Your task to perform on an android device: stop showing notifications on the lock screen Image 0: 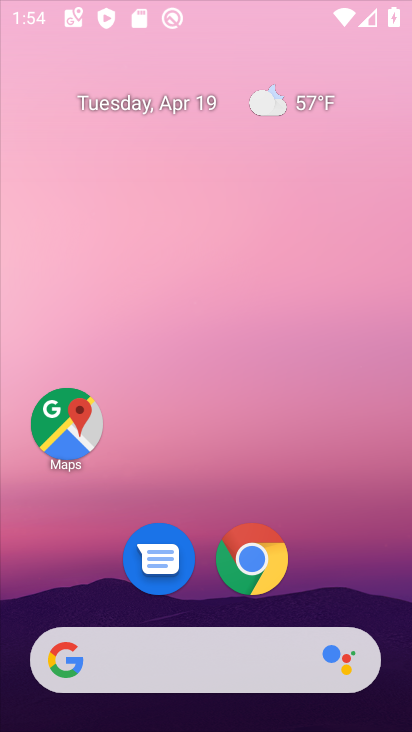
Step 0: click (251, 550)
Your task to perform on an android device: stop showing notifications on the lock screen Image 1: 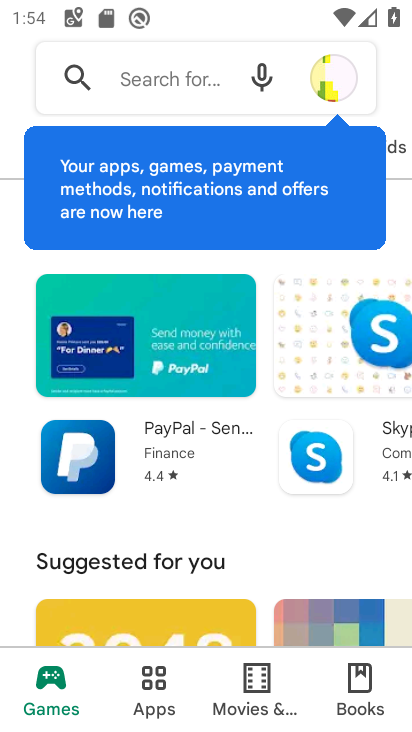
Step 1: press home button
Your task to perform on an android device: stop showing notifications on the lock screen Image 2: 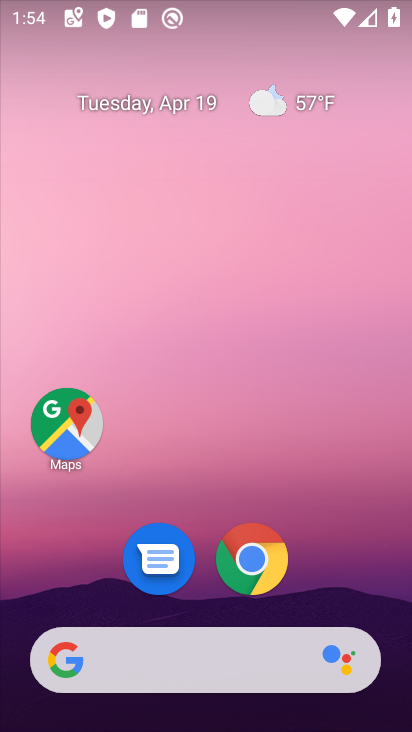
Step 2: drag from (211, 598) to (256, 114)
Your task to perform on an android device: stop showing notifications on the lock screen Image 3: 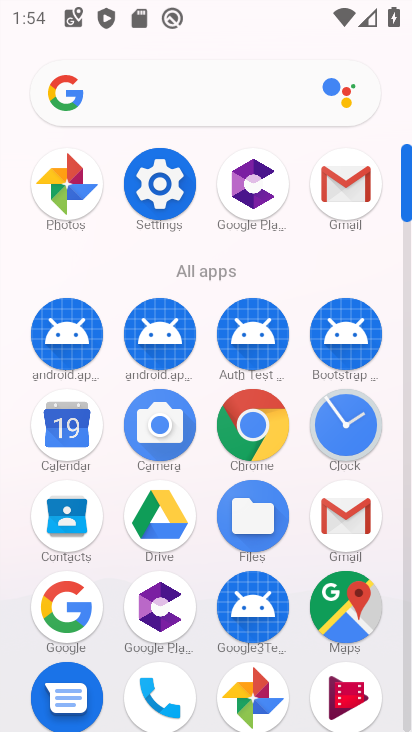
Step 3: click (159, 179)
Your task to perform on an android device: stop showing notifications on the lock screen Image 4: 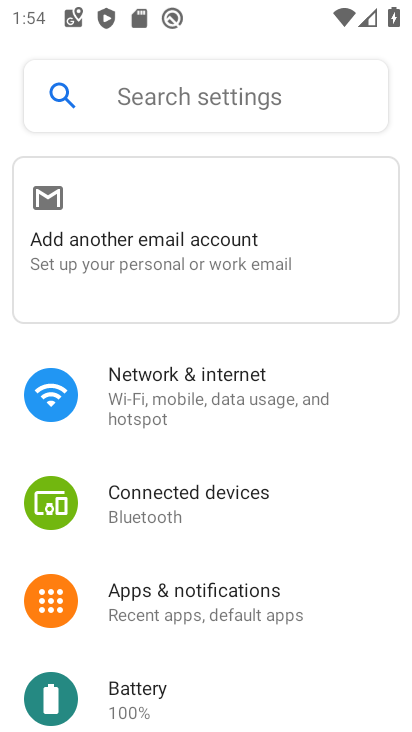
Step 4: click (221, 598)
Your task to perform on an android device: stop showing notifications on the lock screen Image 5: 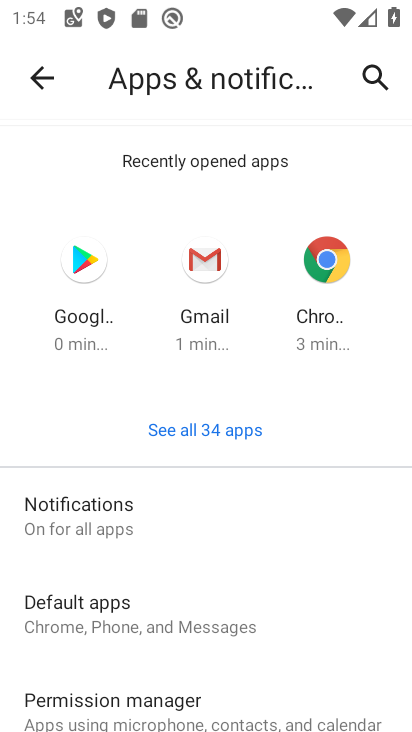
Step 5: click (148, 508)
Your task to perform on an android device: stop showing notifications on the lock screen Image 6: 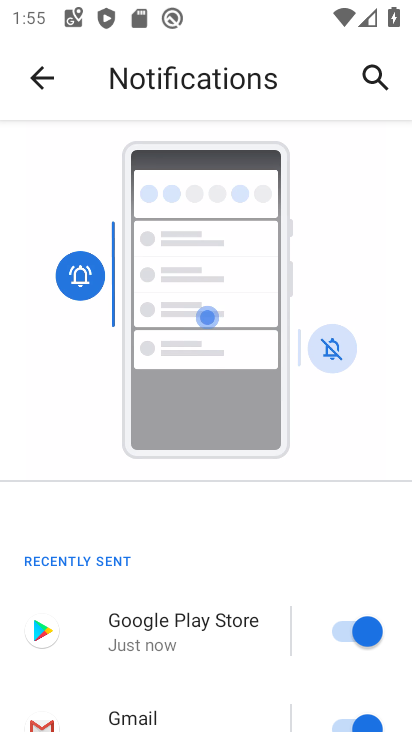
Step 6: drag from (239, 245) to (239, 117)
Your task to perform on an android device: stop showing notifications on the lock screen Image 7: 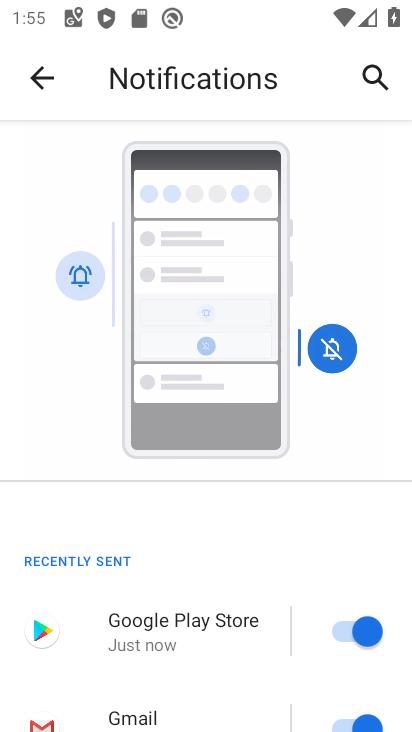
Step 7: drag from (245, 634) to (245, 178)
Your task to perform on an android device: stop showing notifications on the lock screen Image 8: 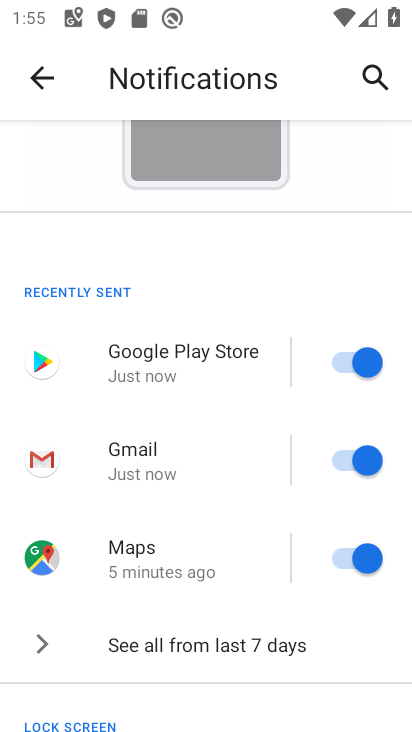
Step 8: drag from (206, 606) to (246, 171)
Your task to perform on an android device: stop showing notifications on the lock screen Image 9: 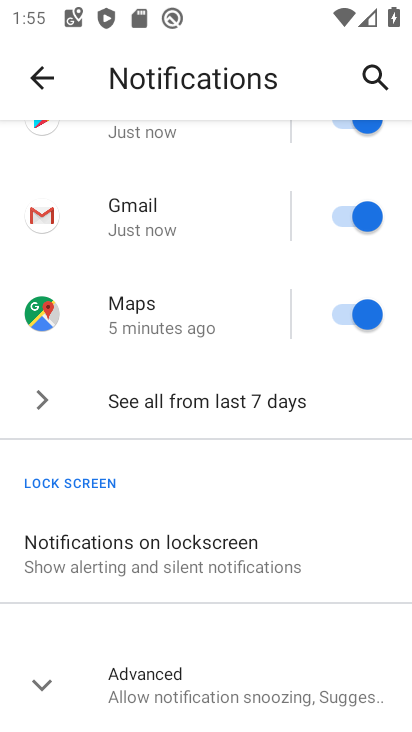
Step 9: click (203, 542)
Your task to perform on an android device: stop showing notifications on the lock screen Image 10: 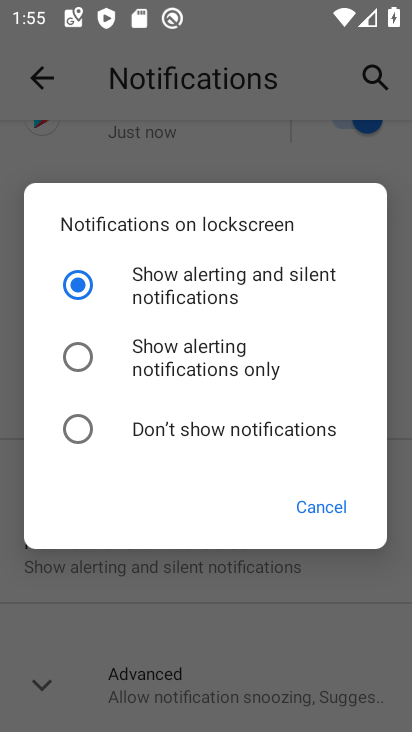
Step 10: click (71, 423)
Your task to perform on an android device: stop showing notifications on the lock screen Image 11: 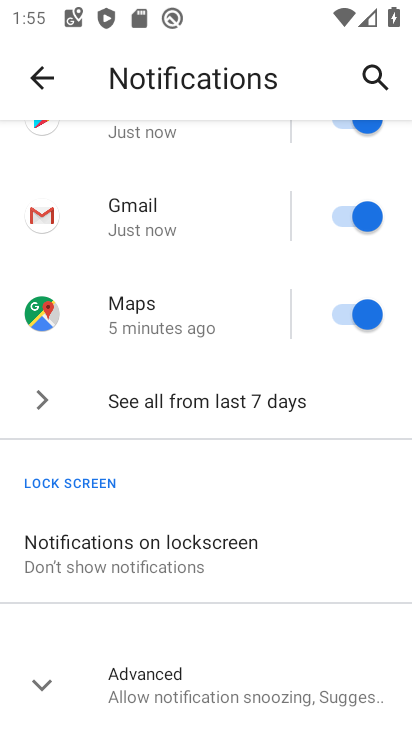
Step 11: task complete